Your task to perform on an android device: Open Youtube and go to "Your channel" Image 0: 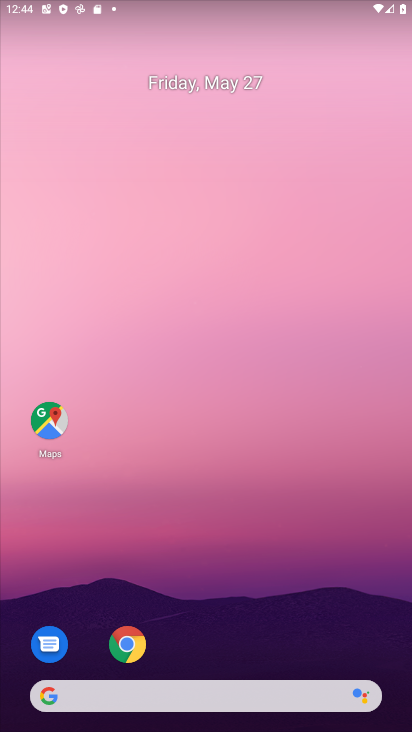
Step 0: drag from (305, 625) to (226, 32)
Your task to perform on an android device: Open Youtube and go to "Your channel" Image 1: 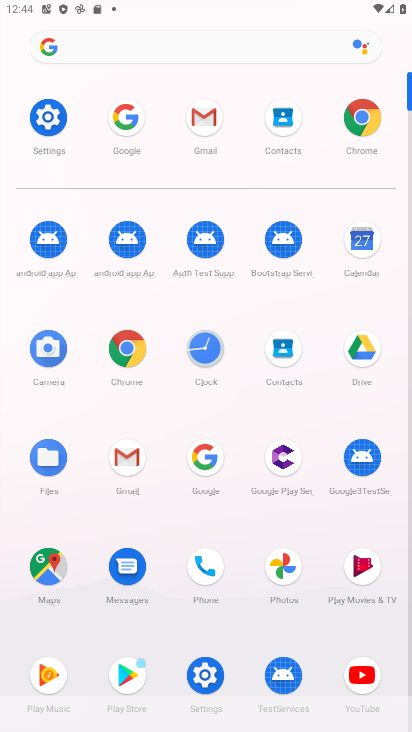
Step 1: click (355, 690)
Your task to perform on an android device: Open Youtube and go to "Your channel" Image 2: 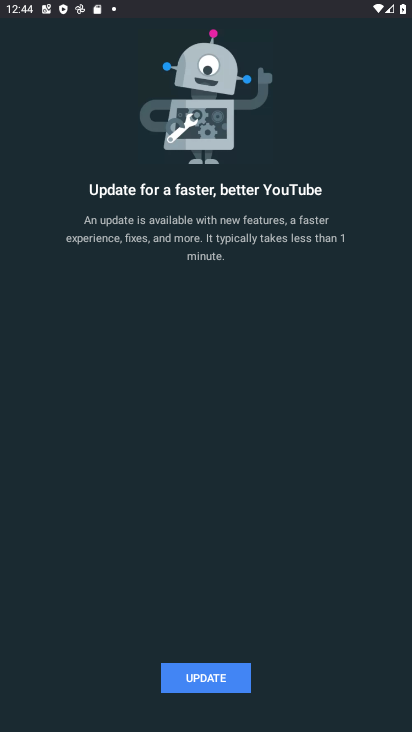
Step 2: click (217, 679)
Your task to perform on an android device: Open Youtube and go to "Your channel" Image 3: 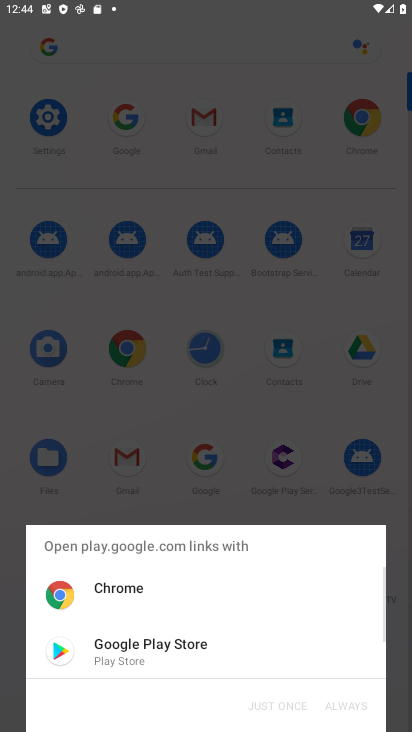
Step 3: click (186, 653)
Your task to perform on an android device: Open Youtube and go to "Your channel" Image 4: 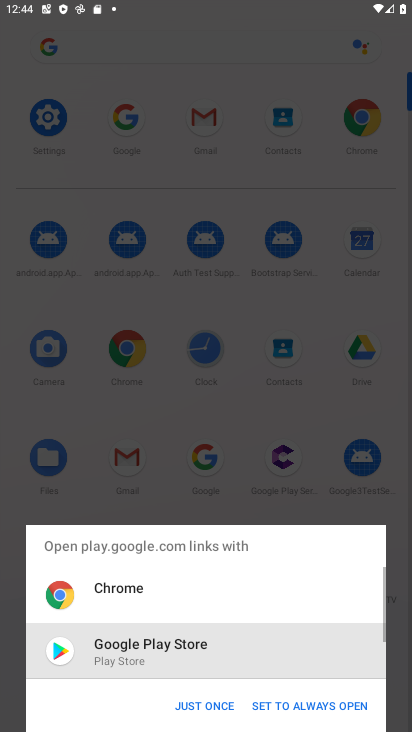
Step 4: click (213, 706)
Your task to perform on an android device: Open Youtube and go to "Your channel" Image 5: 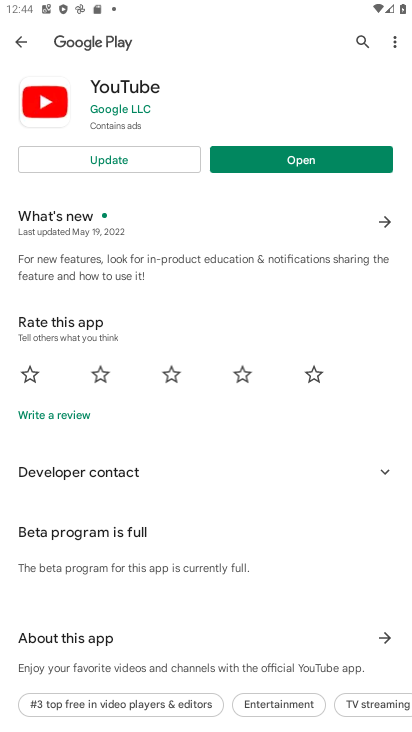
Step 5: click (151, 160)
Your task to perform on an android device: Open Youtube and go to "Your channel" Image 6: 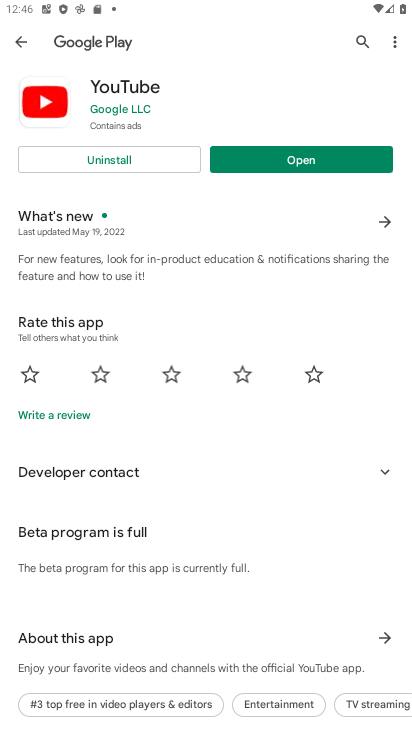
Step 6: click (276, 163)
Your task to perform on an android device: Open Youtube and go to "Your channel" Image 7: 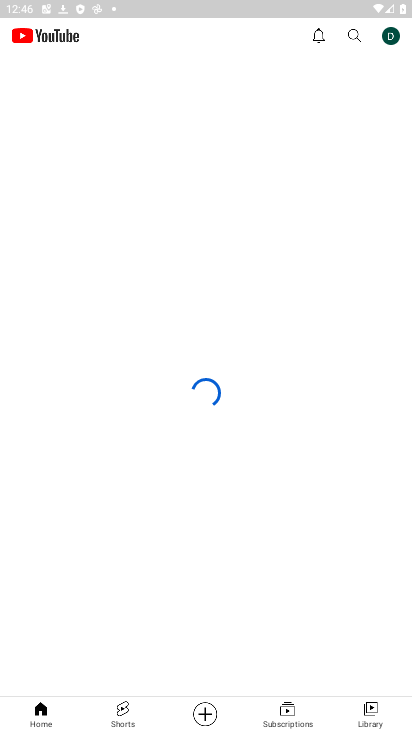
Step 7: click (392, 36)
Your task to perform on an android device: Open Youtube and go to "Your channel" Image 8: 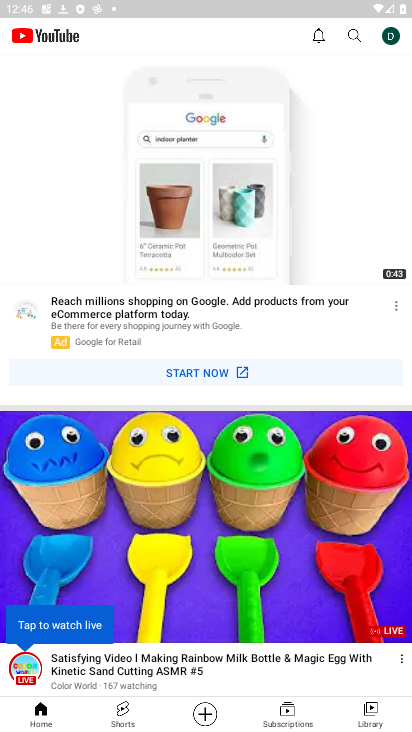
Step 8: click (391, 43)
Your task to perform on an android device: Open Youtube and go to "Your channel" Image 9: 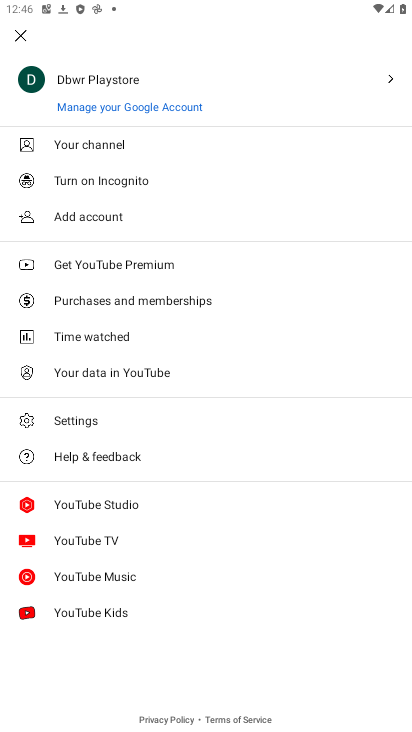
Step 9: click (92, 156)
Your task to perform on an android device: Open Youtube and go to "Your channel" Image 10: 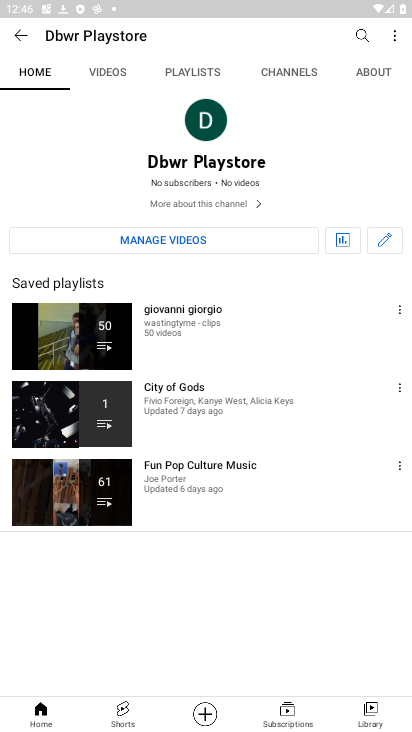
Step 10: task complete